Your task to perform on an android device: empty trash in the gmail app Image 0: 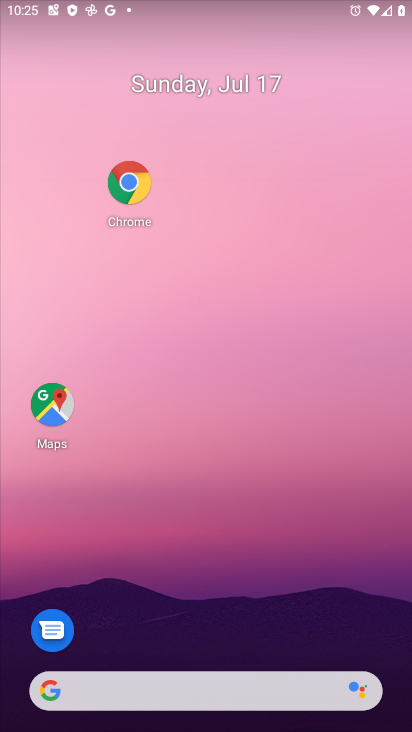
Step 0: drag from (168, 247) to (168, 116)
Your task to perform on an android device: empty trash in the gmail app Image 1: 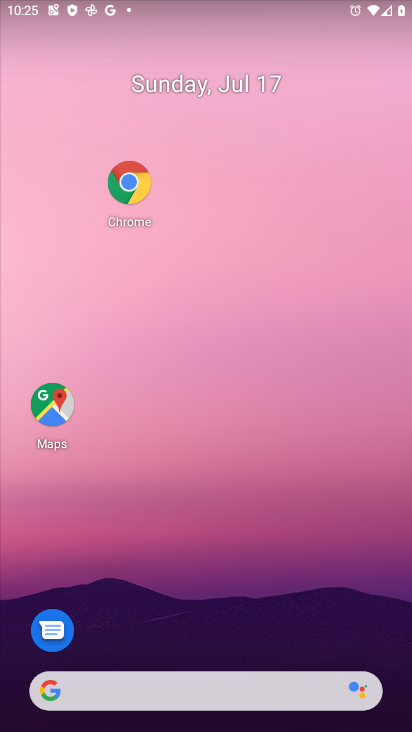
Step 1: drag from (217, 510) to (232, 190)
Your task to perform on an android device: empty trash in the gmail app Image 2: 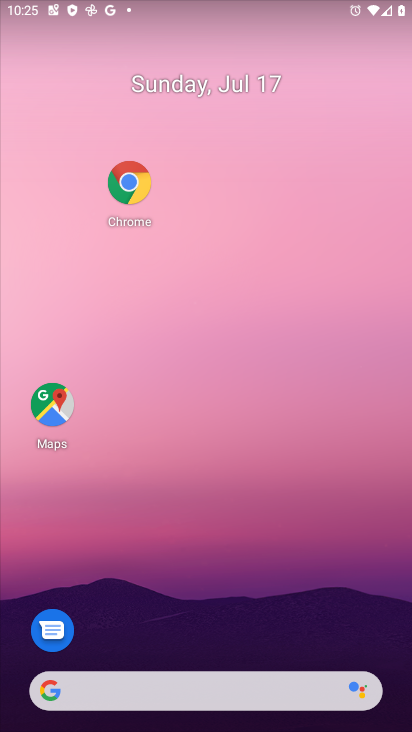
Step 2: drag from (212, 530) to (256, 143)
Your task to perform on an android device: empty trash in the gmail app Image 3: 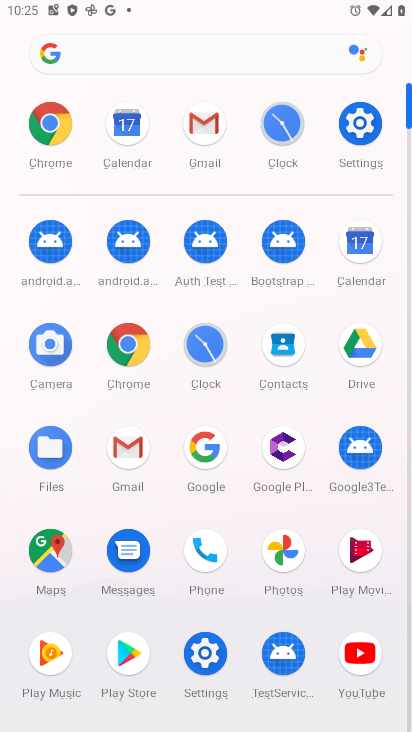
Step 3: click (208, 132)
Your task to perform on an android device: empty trash in the gmail app Image 4: 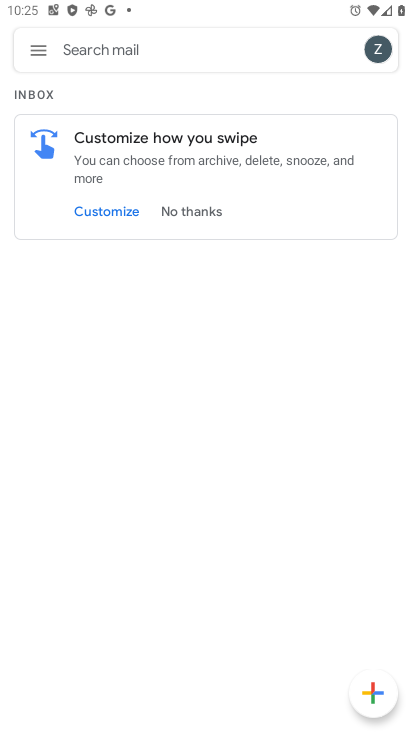
Step 4: click (38, 73)
Your task to perform on an android device: empty trash in the gmail app Image 5: 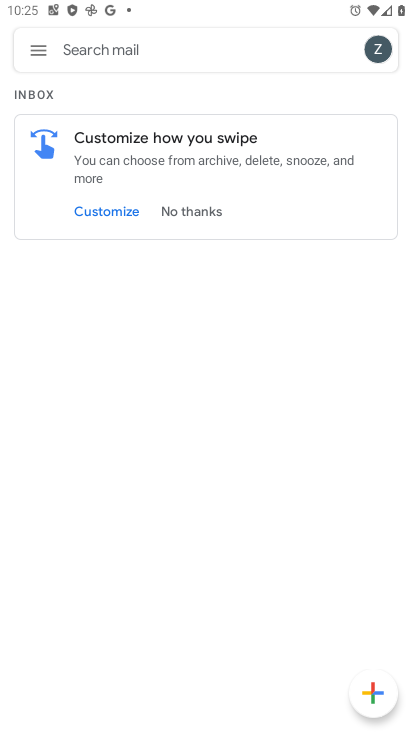
Step 5: click (38, 49)
Your task to perform on an android device: empty trash in the gmail app Image 6: 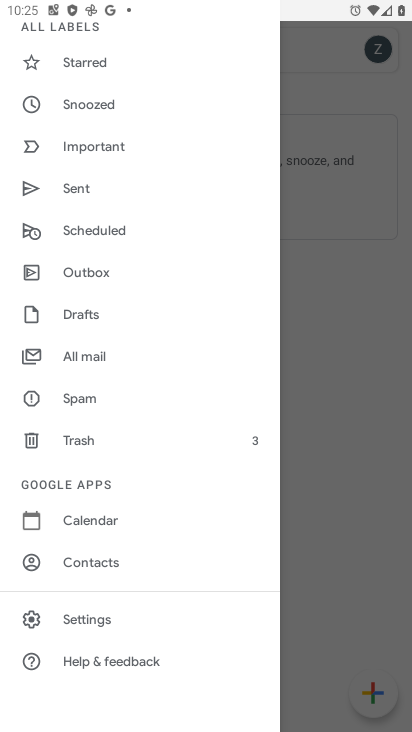
Step 6: click (65, 442)
Your task to perform on an android device: empty trash in the gmail app Image 7: 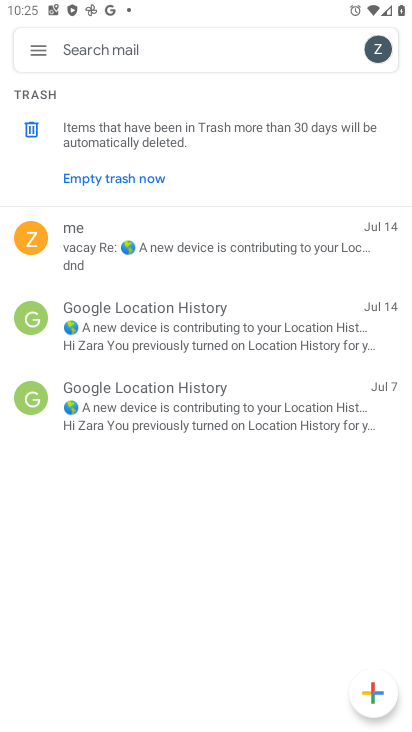
Step 7: click (112, 178)
Your task to perform on an android device: empty trash in the gmail app Image 8: 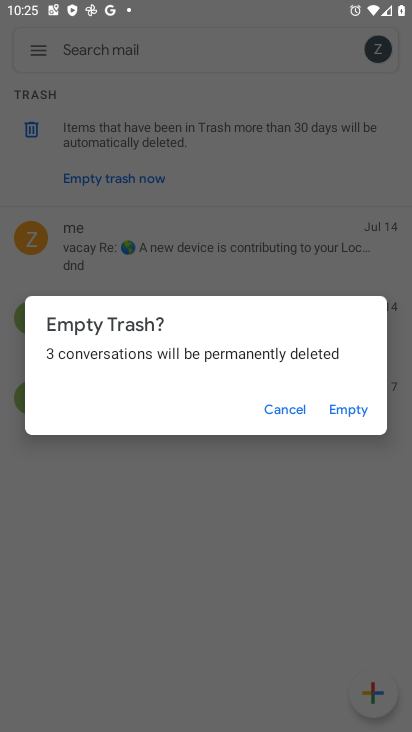
Step 8: click (342, 409)
Your task to perform on an android device: empty trash in the gmail app Image 9: 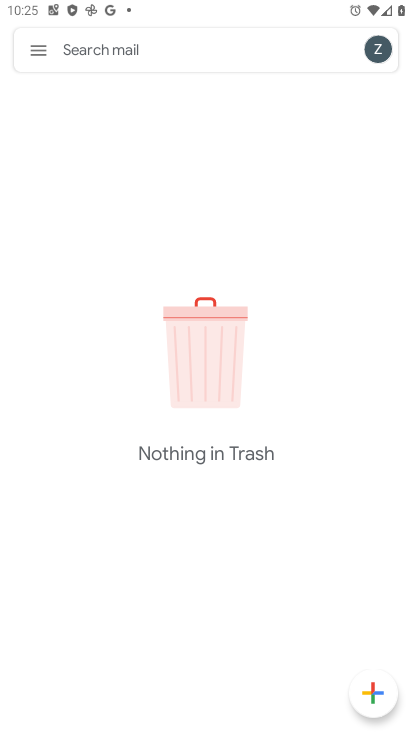
Step 9: task complete